Your task to perform on an android device: Open Chrome and go to the settings page Image 0: 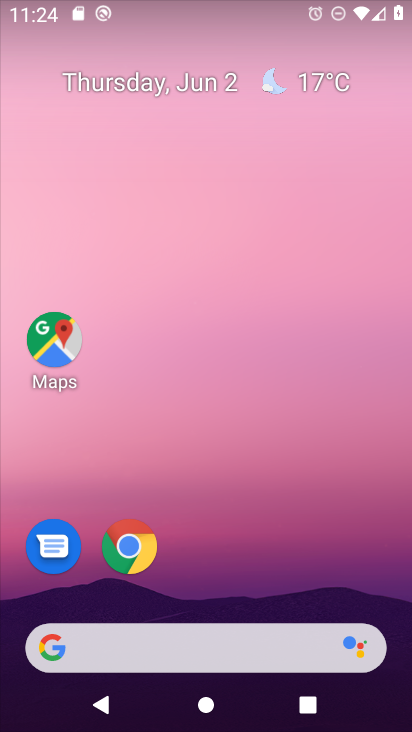
Step 0: drag from (256, 567) to (181, 18)
Your task to perform on an android device: Open Chrome and go to the settings page Image 1: 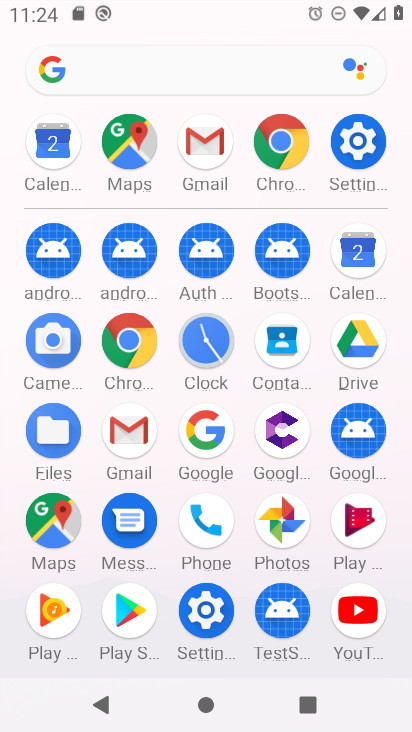
Step 1: click (128, 338)
Your task to perform on an android device: Open Chrome and go to the settings page Image 2: 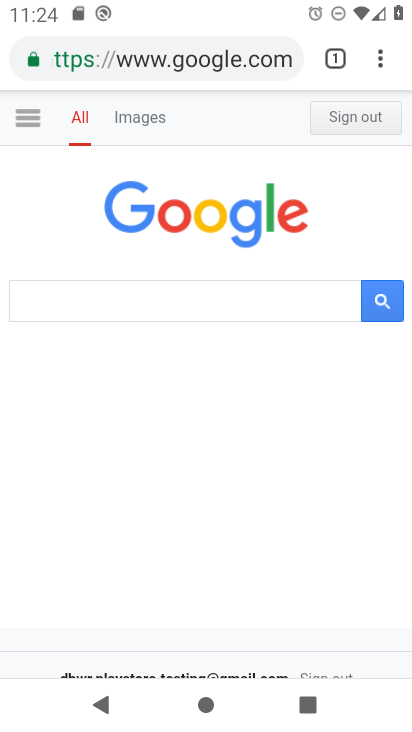
Step 2: task complete